Your task to perform on an android device: Go to accessibility settings Image 0: 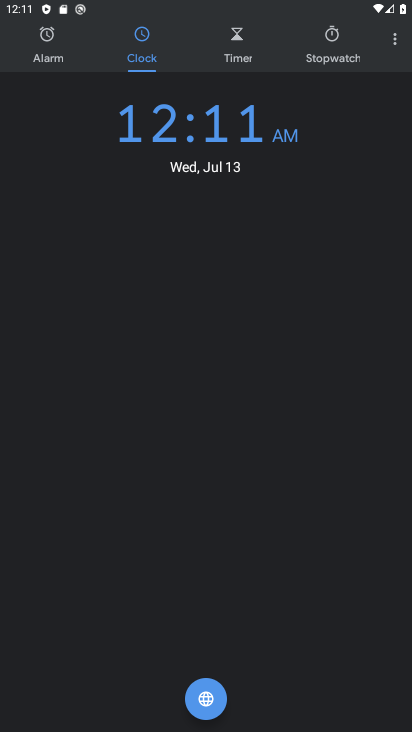
Step 0: press home button
Your task to perform on an android device: Go to accessibility settings Image 1: 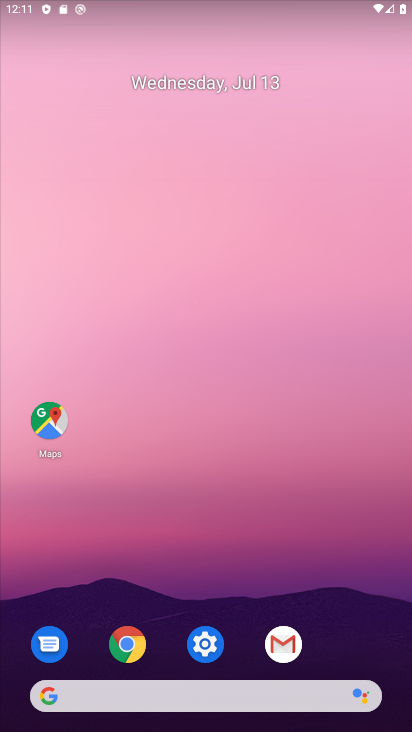
Step 1: click (227, 625)
Your task to perform on an android device: Go to accessibility settings Image 2: 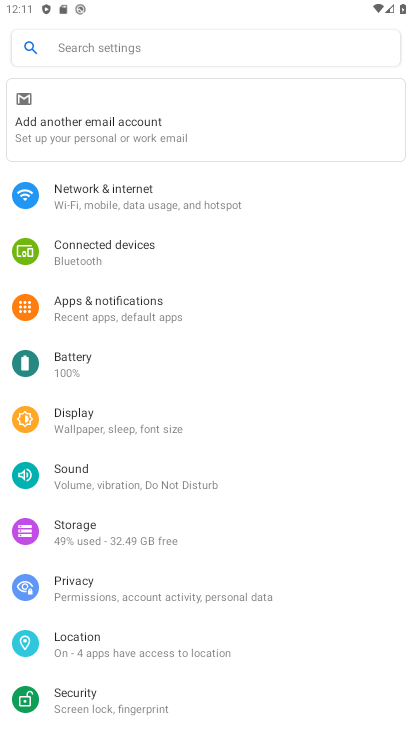
Step 2: click (113, 45)
Your task to perform on an android device: Go to accessibility settings Image 3: 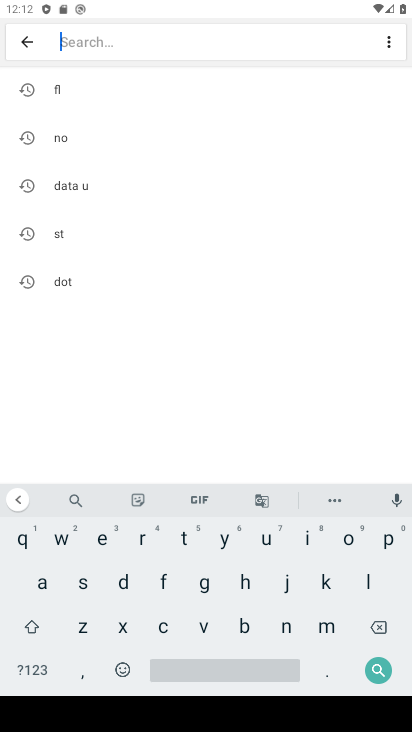
Step 3: click (37, 584)
Your task to perform on an android device: Go to accessibility settings Image 4: 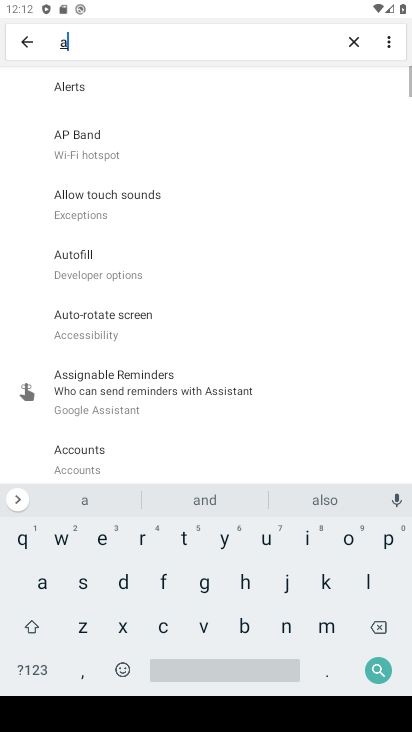
Step 4: click (164, 624)
Your task to perform on an android device: Go to accessibility settings Image 5: 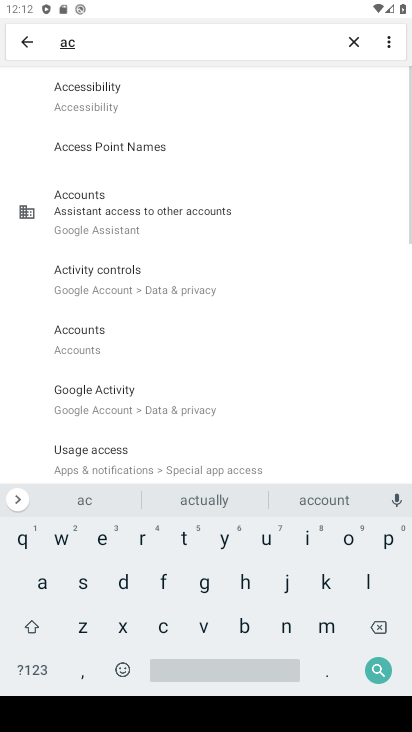
Step 5: click (119, 110)
Your task to perform on an android device: Go to accessibility settings Image 6: 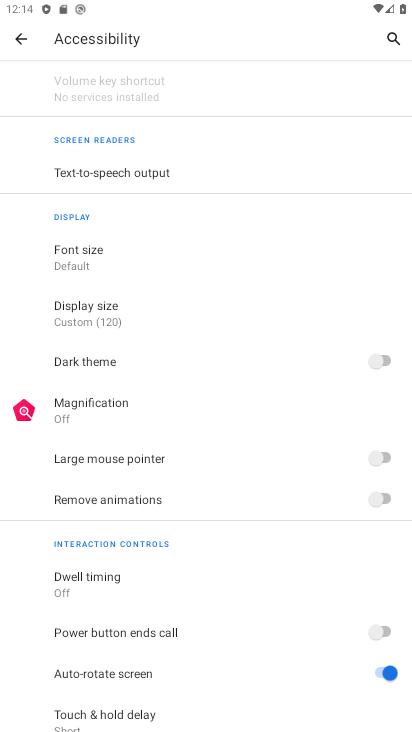
Step 6: task complete